Your task to perform on an android device: turn on the 12-hour format for clock Image 0: 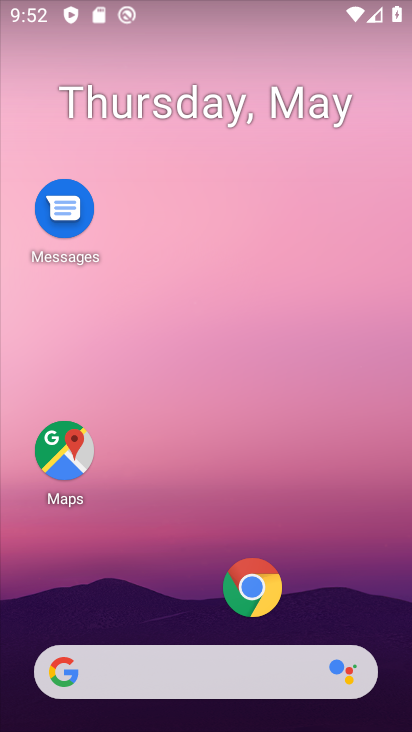
Step 0: drag from (203, 630) to (161, 3)
Your task to perform on an android device: turn on the 12-hour format for clock Image 1: 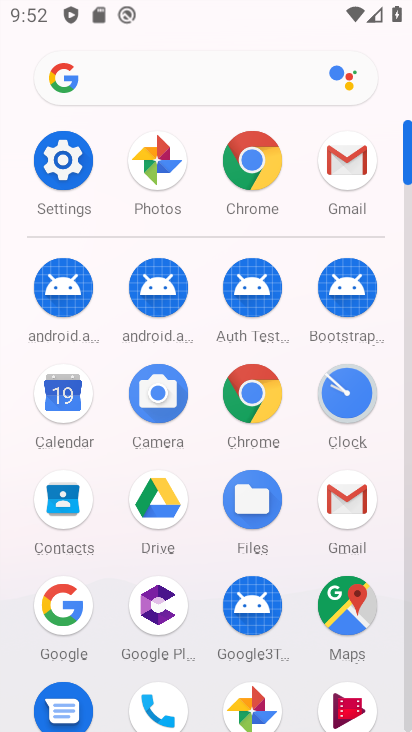
Step 1: click (343, 416)
Your task to perform on an android device: turn on the 12-hour format for clock Image 2: 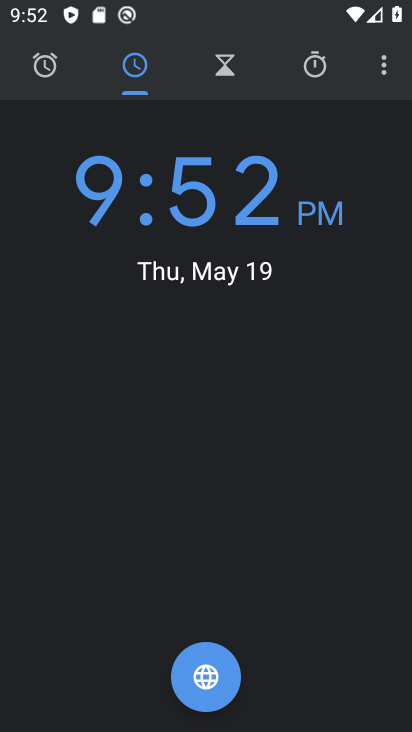
Step 2: click (373, 73)
Your task to perform on an android device: turn on the 12-hour format for clock Image 3: 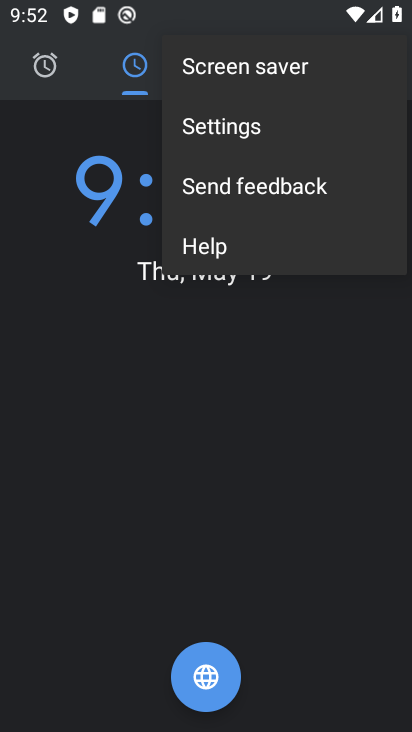
Step 3: click (228, 140)
Your task to perform on an android device: turn on the 12-hour format for clock Image 4: 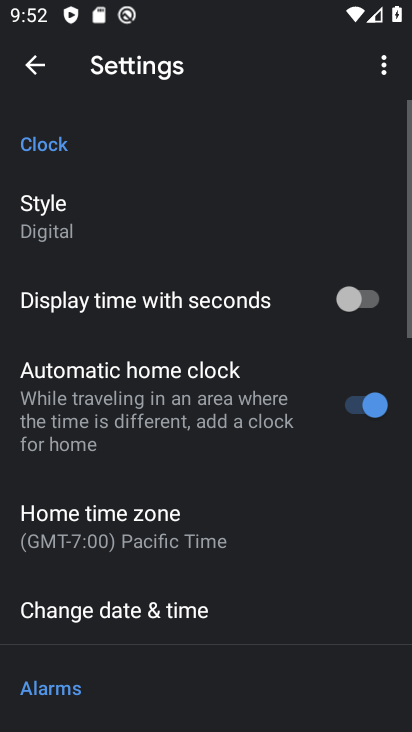
Step 4: click (106, 608)
Your task to perform on an android device: turn on the 12-hour format for clock Image 5: 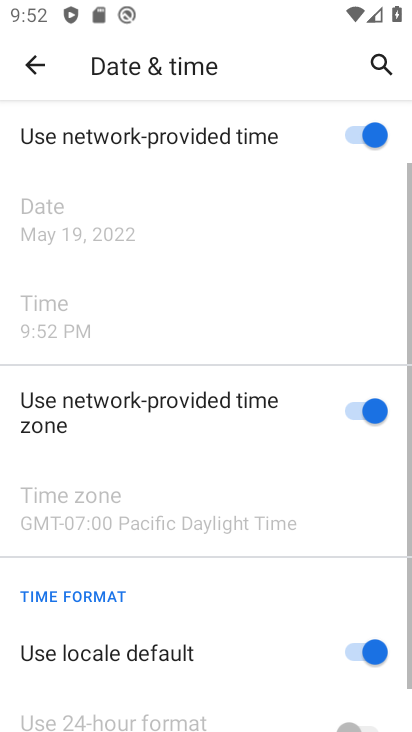
Step 5: task complete